Your task to perform on an android device: turn on wifi Image 0: 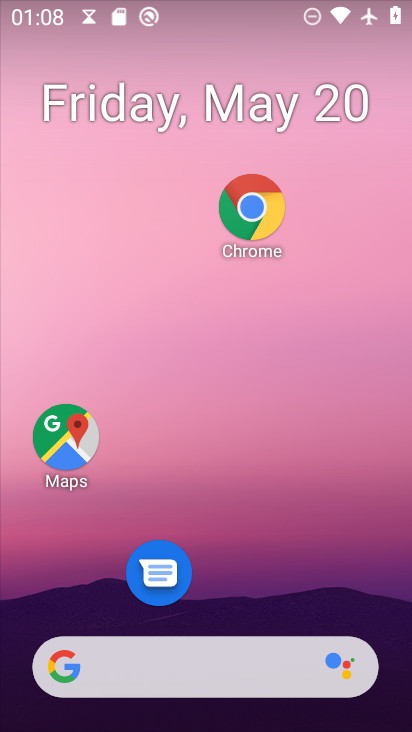
Step 0: drag from (242, 562) to (289, 54)
Your task to perform on an android device: turn on wifi Image 1: 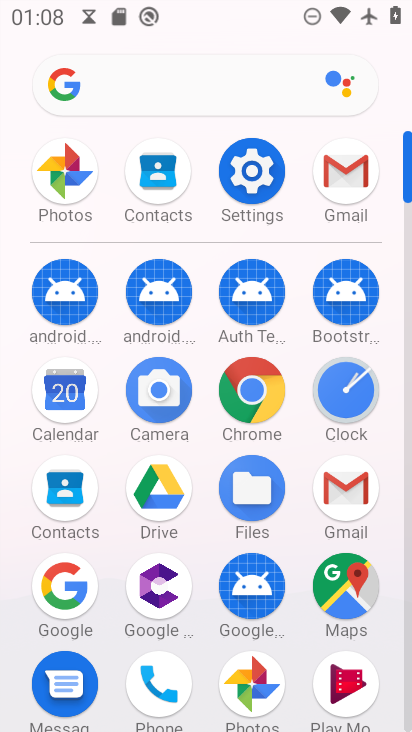
Step 1: click (243, 171)
Your task to perform on an android device: turn on wifi Image 2: 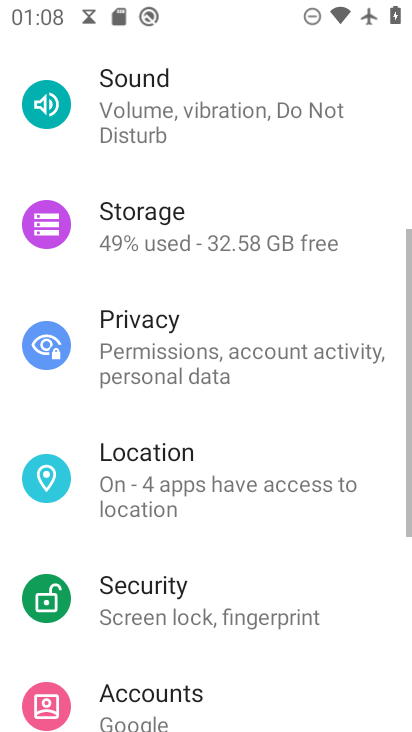
Step 2: drag from (204, 212) to (111, 699)
Your task to perform on an android device: turn on wifi Image 3: 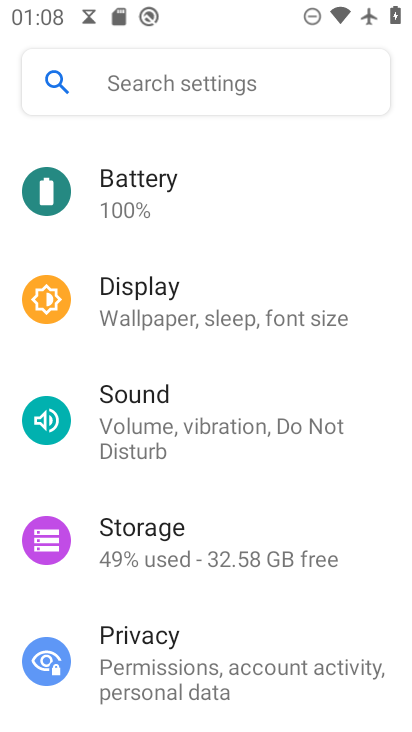
Step 3: drag from (150, 335) to (119, 696)
Your task to perform on an android device: turn on wifi Image 4: 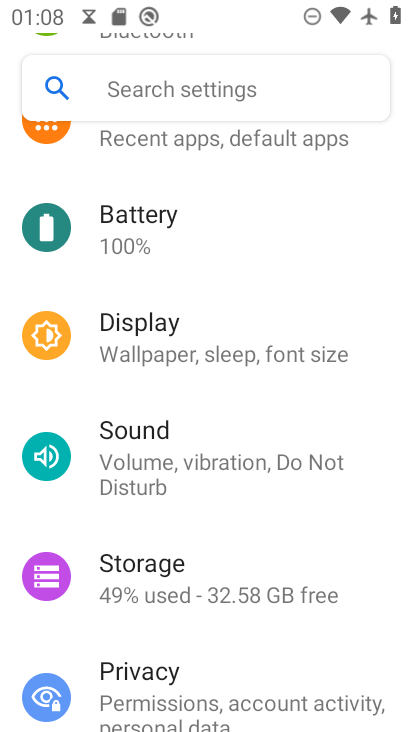
Step 4: drag from (185, 247) to (197, 697)
Your task to perform on an android device: turn on wifi Image 5: 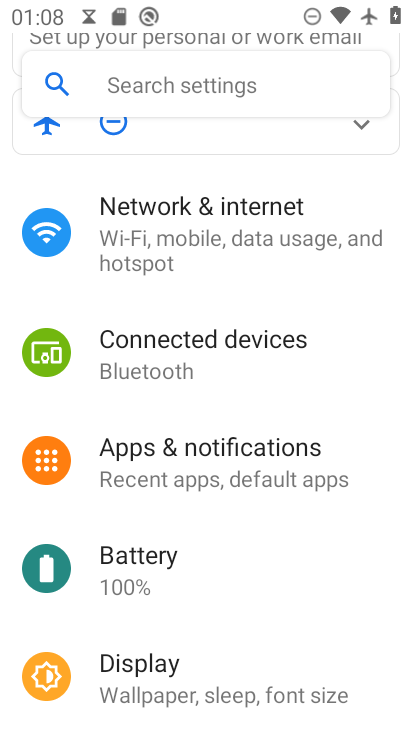
Step 5: click (194, 242)
Your task to perform on an android device: turn on wifi Image 6: 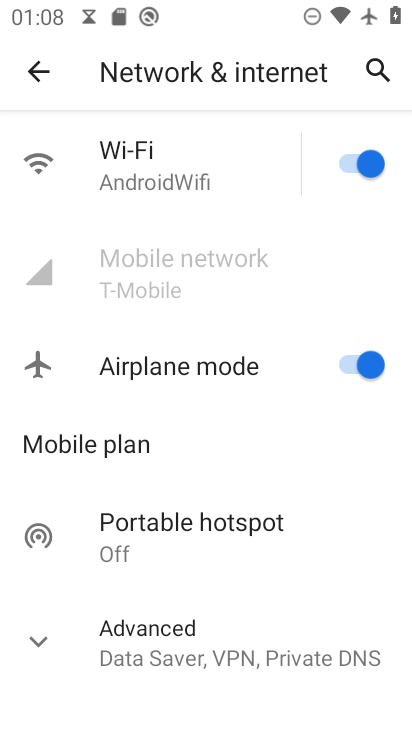
Step 6: task complete